Your task to perform on an android device: Search for 8K TVs on Best Buy. Image 0: 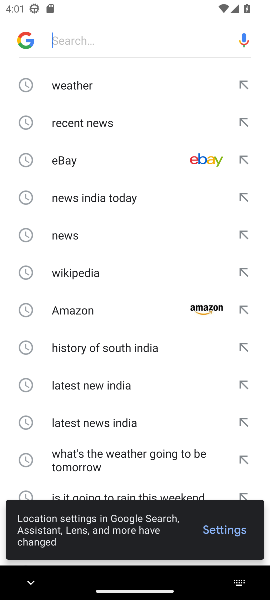
Step 0: press home button
Your task to perform on an android device: Search for 8K TVs on Best Buy. Image 1: 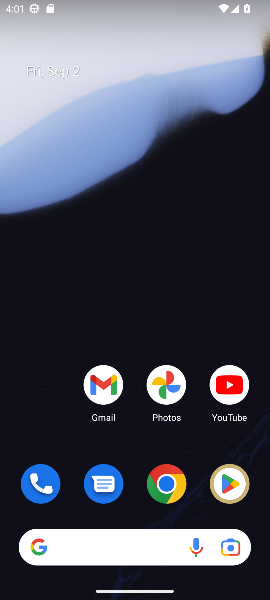
Step 1: click (167, 483)
Your task to perform on an android device: Search for 8K TVs on Best Buy. Image 2: 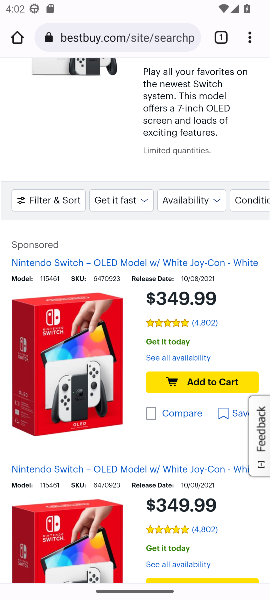
Step 2: click (153, 33)
Your task to perform on an android device: Search for 8K TVs on Best Buy. Image 3: 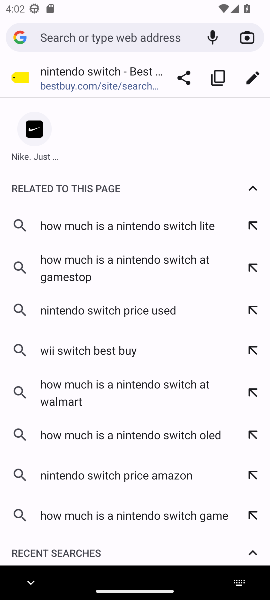
Step 3: type " Best Buy"
Your task to perform on an android device: Search for 8K TVs on Best Buy. Image 4: 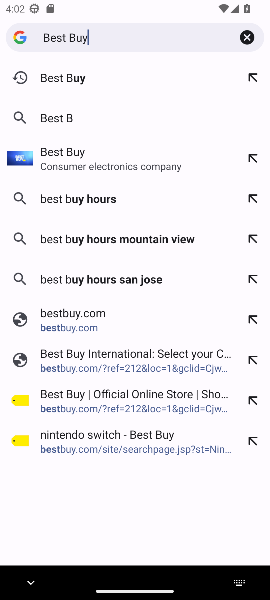
Step 4: press enter
Your task to perform on an android device: Search for 8K TVs on Best Buy. Image 5: 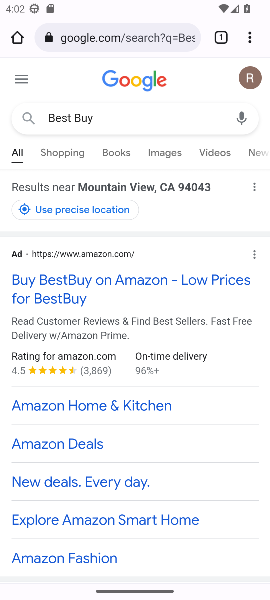
Step 5: click (122, 277)
Your task to perform on an android device: Search for 8K TVs on Best Buy. Image 6: 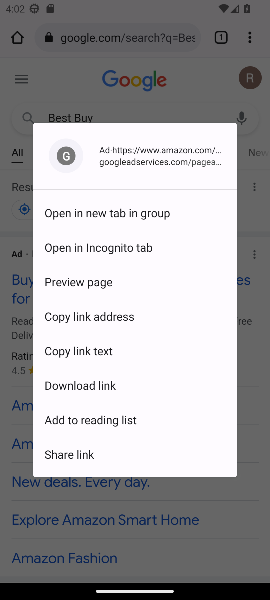
Step 6: click (261, 463)
Your task to perform on an android device: Search for 8K TVs on Best Buy. Image 7: 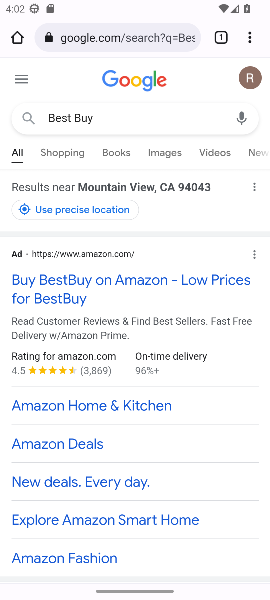
Step 7: click (152, 280)
Your task to perform on an android device: Search for 8K TVs on Best Buy. Image 8: 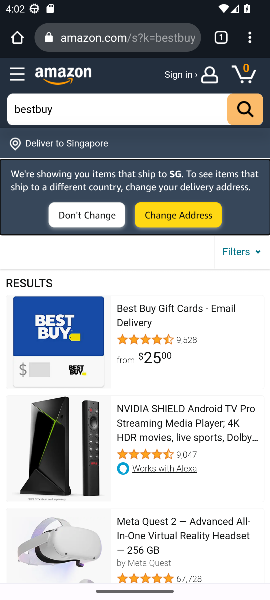
Step 8: press back button
Your task to perform on an android device: Search for 8K TVs on Best Buy. Image 9: 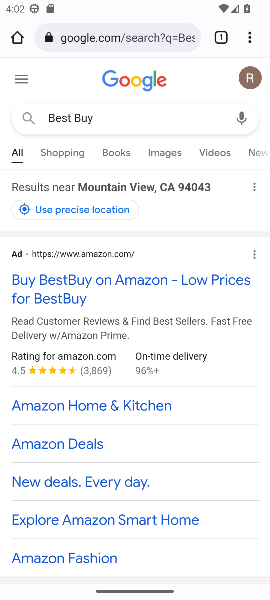
Step 9: drag from (119, 449) to (185, 235)
Your task to perform on an android device: Search for 8K TVs on Best Buy. Image 10: 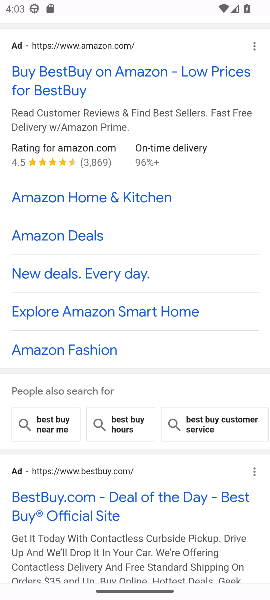
Step 10: click (119, 496)
Your task to perform on an android device: Search for 8K TVs on Best Buy. Image 11: 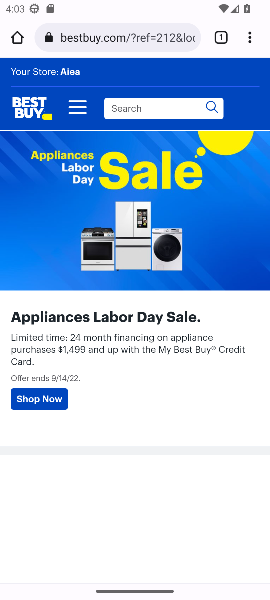
Step 11: click (123, 108)
Your task to perform on an android device: Search for 8K TVs on Best Buy. Image 12: 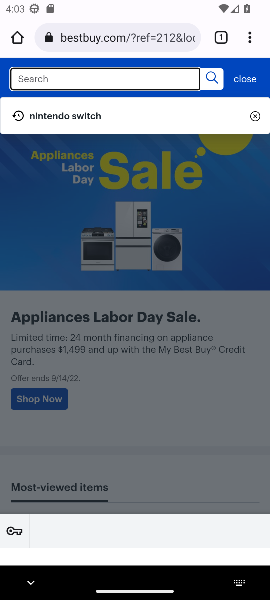
Step 12: type "8K TVs "
Your task to perform on an android device: Search for 8K TVs on Best Buy. Image 13: 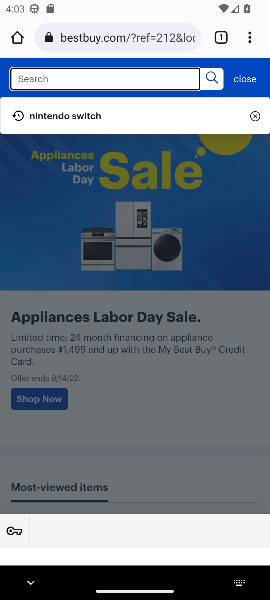
Step 13: press enter
Your task to perform on an android device: Search for 8K TVs on Best Buy. Image 14: 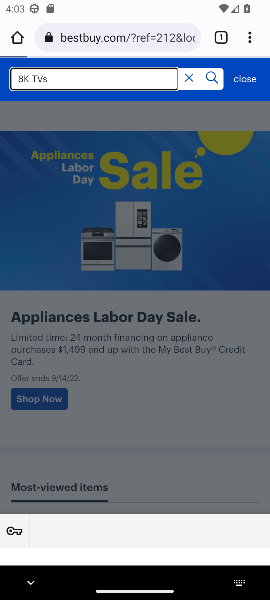
Step 14: drag from (142, 168) to (207, 460)
Your task to perform on an android device: Search for 8K TVs on Best Buy. Image 15: 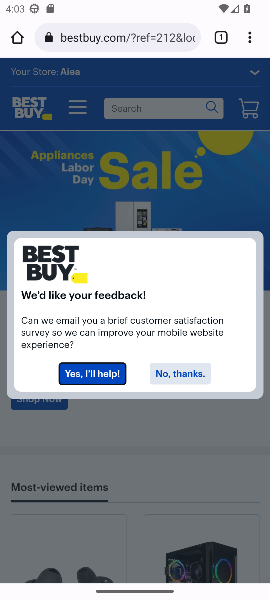
Step 15: click (160, 370)
Your task to perform on an android device: Search for 8K TVs on Best Buy. Image 16: 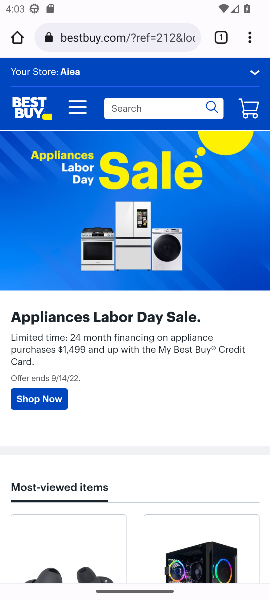
Step 16: click (174, 370)
Your task to perform on an android device: Search for 8K TVs on Best Buy. Image 17: 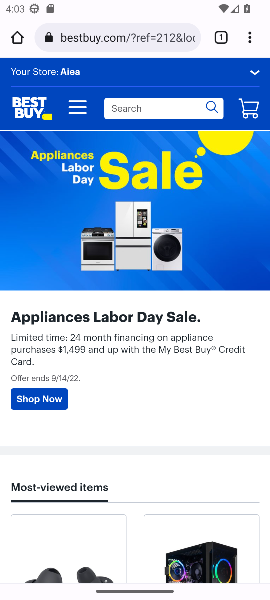
Step 17: drag from (148, 456) to (174, 199)
Your task to perform on an android device: Search for 8K TVs on Best Buy. Image 18: 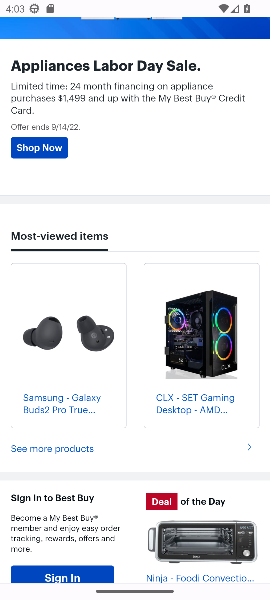
Step 18: drag from (150, 143) to (219, 544)
Your task to perform on an android device: Search for 8K TVs on Best Buy. Image 19: 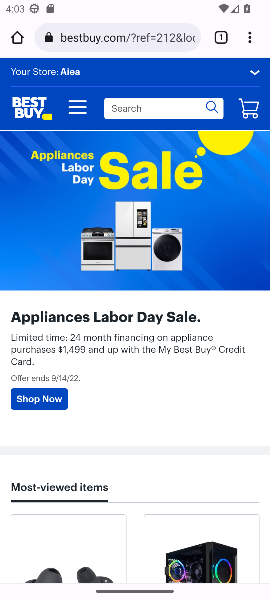
Step 19: click (152, 111)
Your task to perform on an android device: Search for 8K TVs on Best Buy. Image 20: 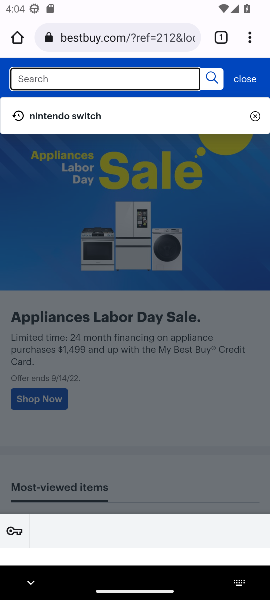
Step 20: type "8K TVs"
Your task to perform on an android device: Search for 8K TVs on Best Buy. Image 21: 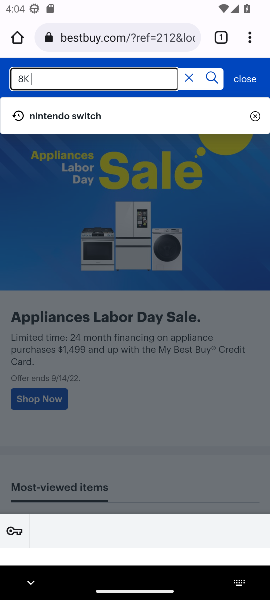
Step 21: press enter
Your task to perform on an android device: Search for 8K TVs on Best Buy. Image 22: 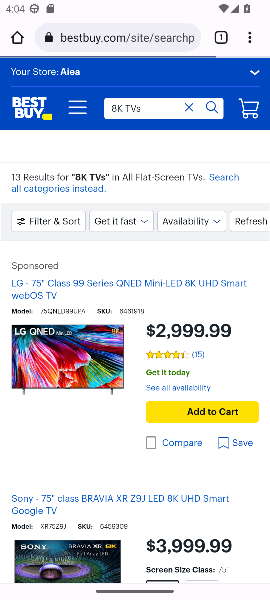
Step 22: drag from (133, 536) to (220, 230)
Your task to perform on an android device: Search for 8K TVs on Best Buy. Image 23: 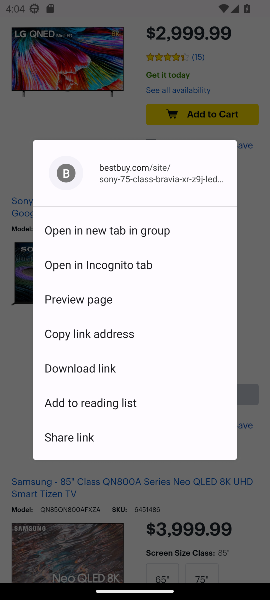
Step 23: click (255, 284)
Your task to perform on an android device: Search for 8K TVs on Best Buy. Image 24: 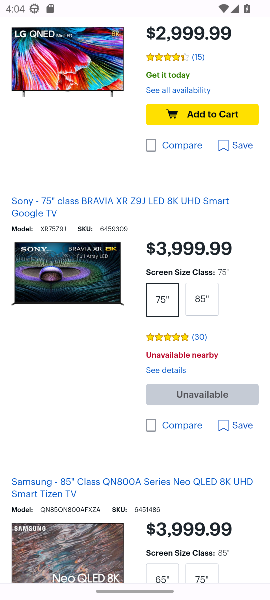
Step 24: task complete